Your task to perform on an android device: Clear the cart on walmart. Add "acer predator" to the cart on walmart Image 0: 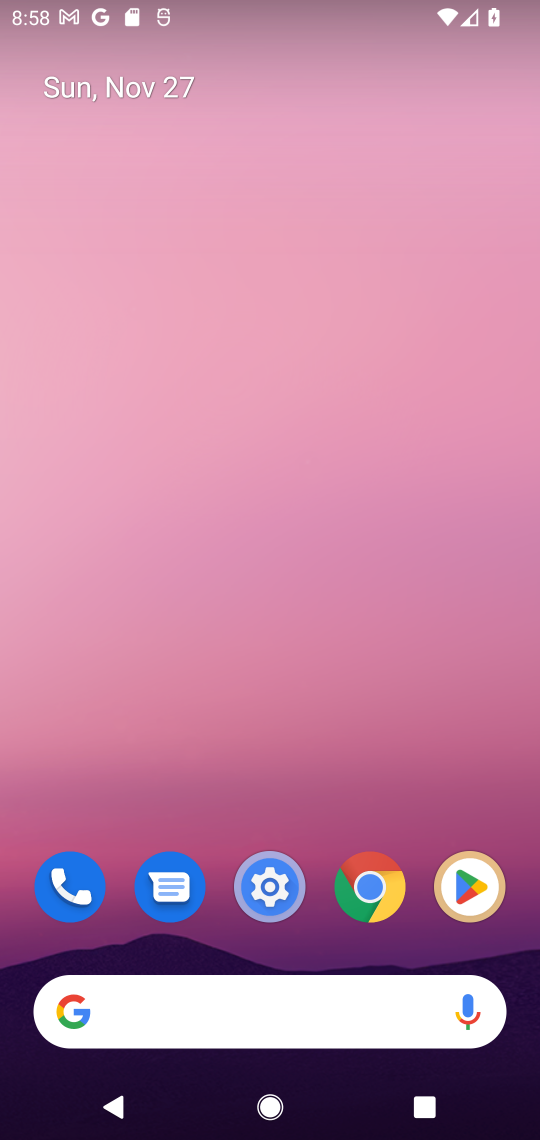
Step 0: click (198, 1030)
Your task to perform on an android device: Clear the cart on walmart. Add "acer predator" to the cart on walmart Image 1: 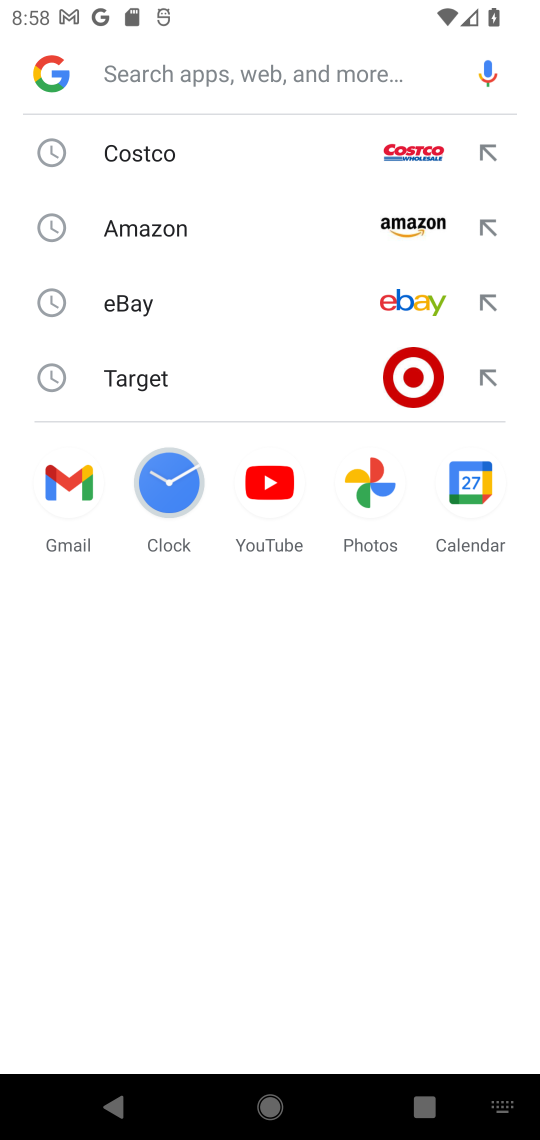
Step 1: type "walmart"
Your task to perform on an android device: Clear the cart on walmart. Add "acer predator" to the cart on walmart Image 2: 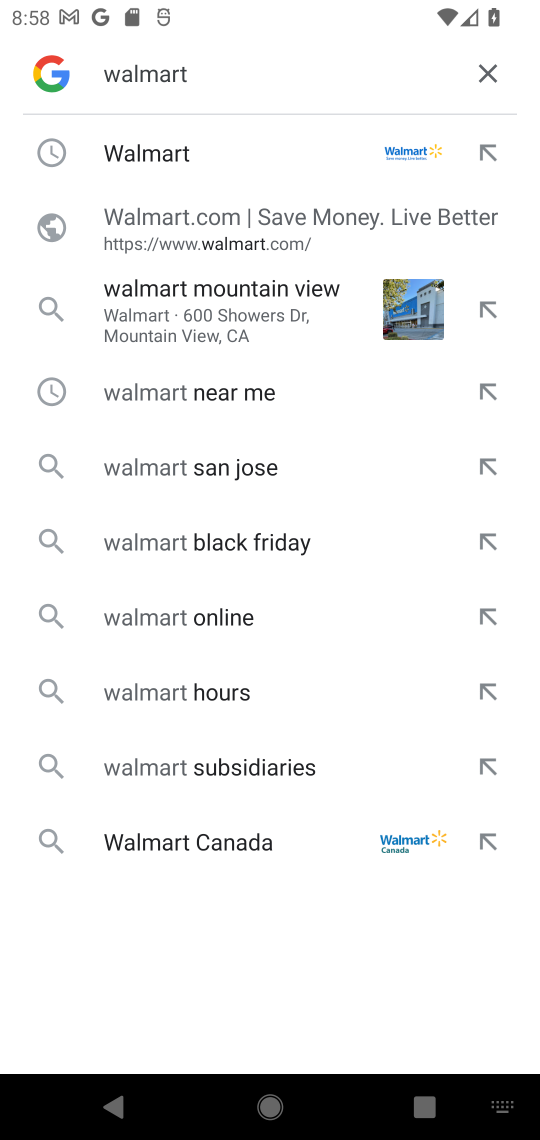
Step 2: click (243, 177)
Your task to perform on an android device: Clear the cart on walmart. Add "acer predator" to the cart on walmart Image 3: 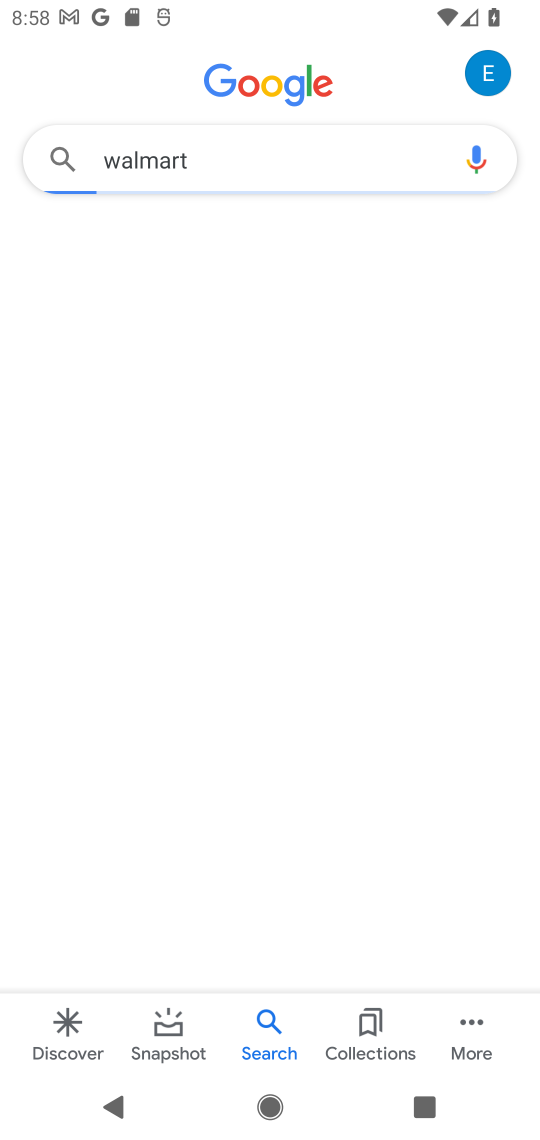
Step 3: task complete